Your task to perform on an android device: turn off wifi Image 0: 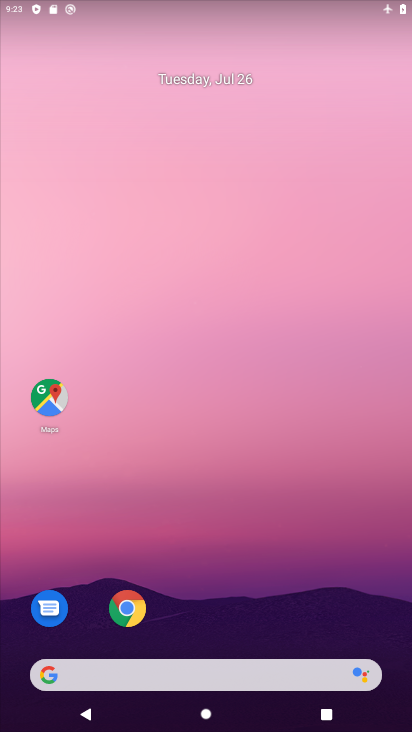
Step 0: drag from (213, 615) to (211, 79)
Your task to perform on an android device: turn off wifi Image 1: 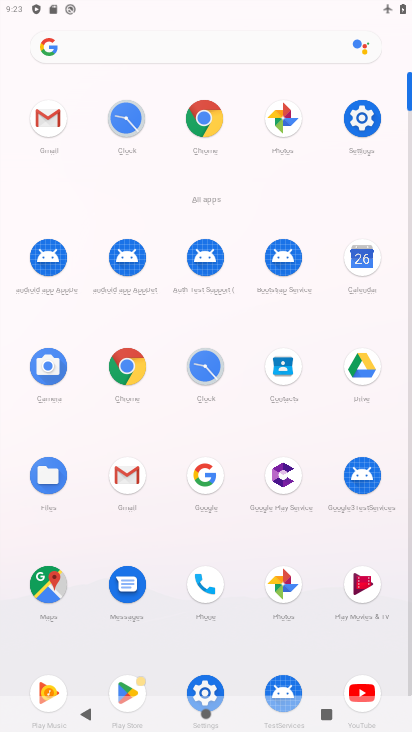
Step 1: click (346, 114)
Your task to perform on an android device: turn off wifi Image 2: 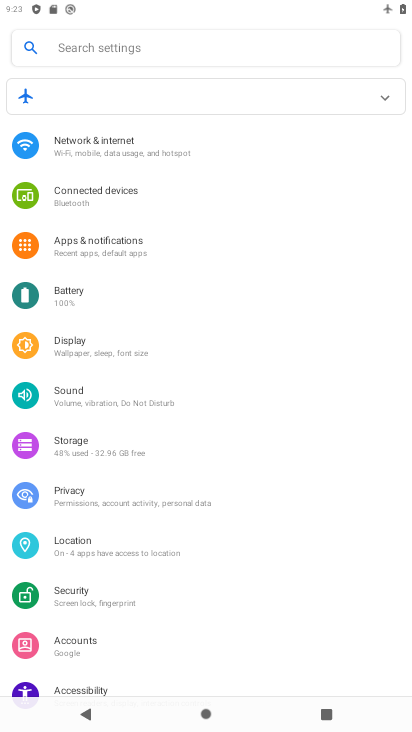
Step 2: click (134, 143)
Your task to perform on an android device: turn off wifi Image 3: 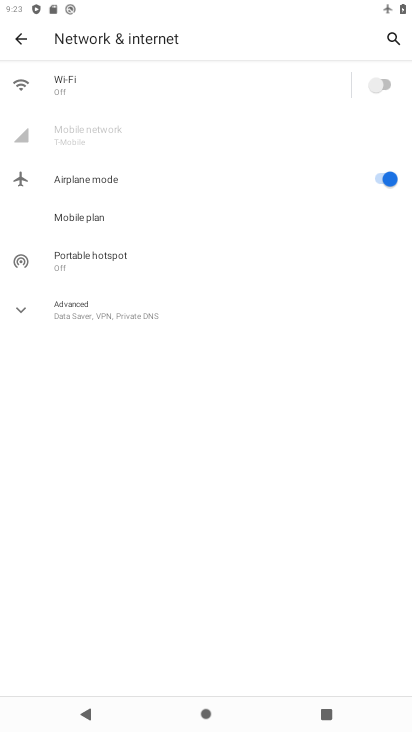
Step 3: task complete